Your task to perform on an android device: add a contact Image 0: 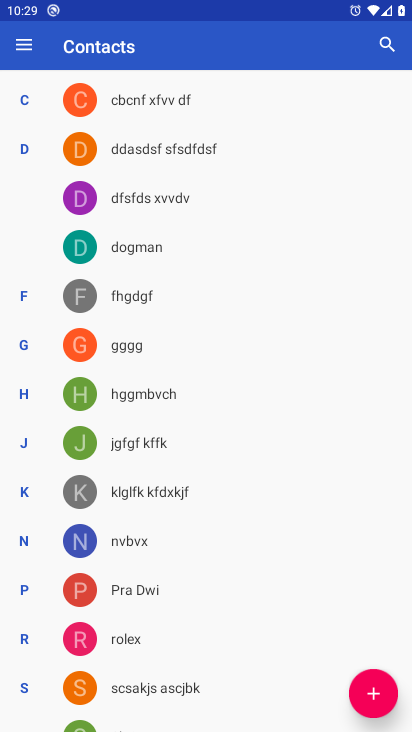
Step 0: click (367, 696)
Your task to perform on an android device: add a contact Image 1: 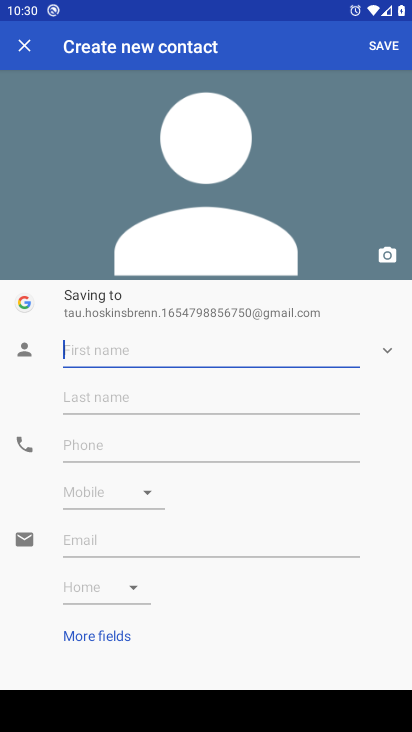
Step 1: type "xyz"
Your task to perform on an android device: add a contact Image 2: 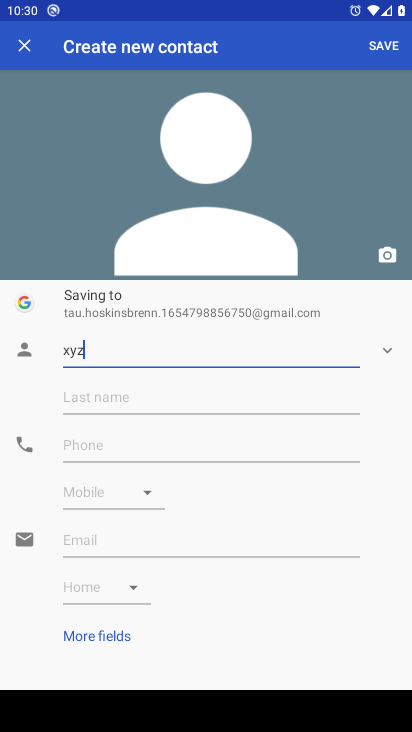
Step 2: type ""
Your task to perform on an android device: add a contact Image 3: 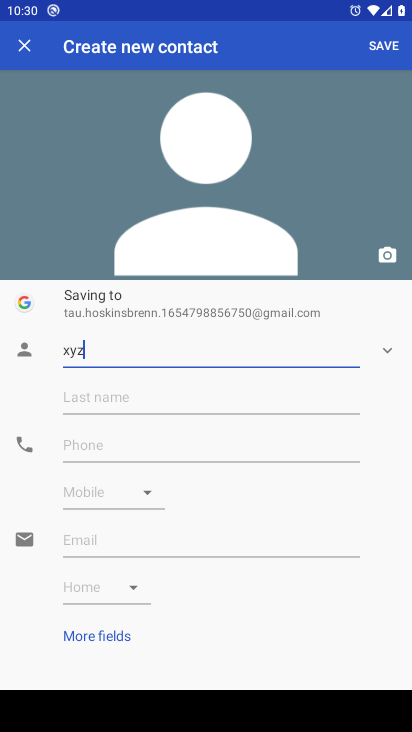
Step 3: click (388, 52)
Your task to perform on an android device: add a contact Image 4: 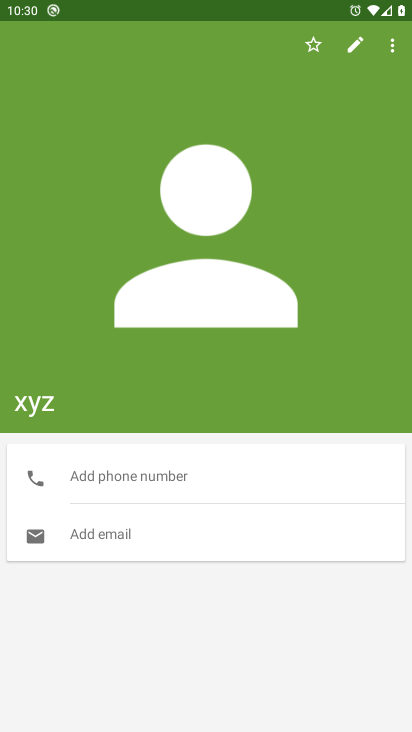
Step 4: task complete